Your task to perform on an android device: Go to eBay Image 0: 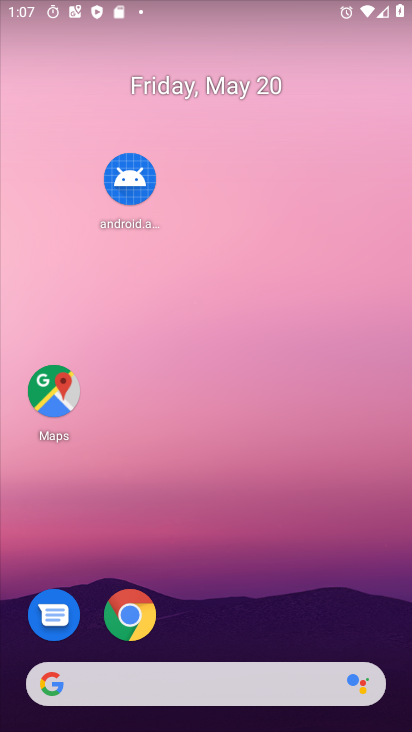
Step 0: click (139, 619)
Your task to perform on an android device: Go to eBay Image 1: 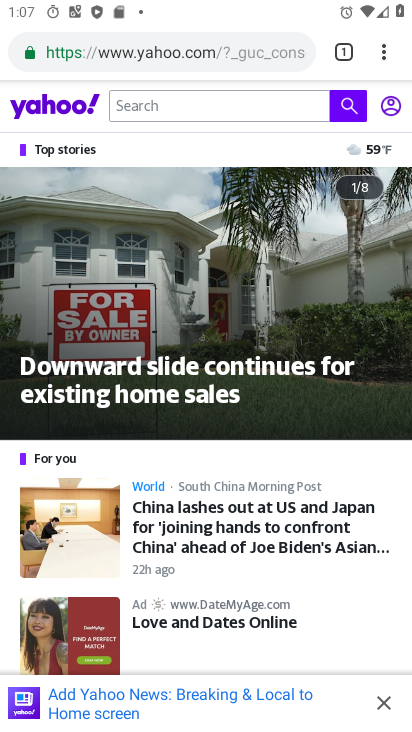
Step 1: click (186, 48)
Your task to perform on an android device: Go to eBay Image 2: 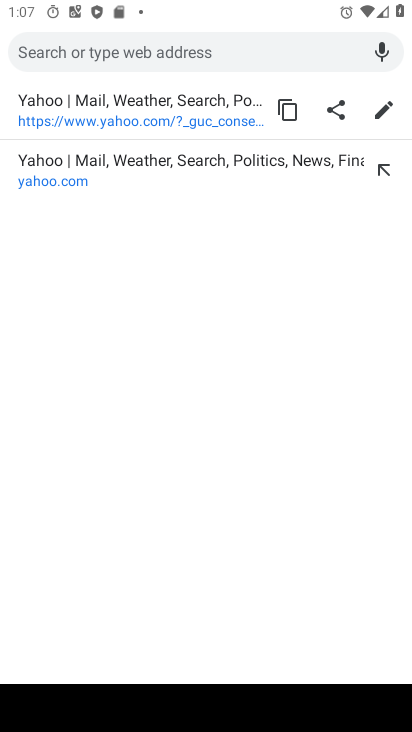
Step 2: type "ebay.com"
Your task to perform on an android device: Go to eBay Image 3: 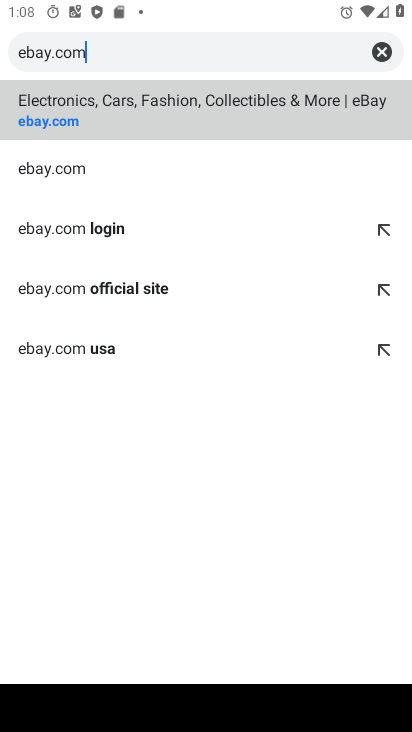
Step 3: click (206, 109)
Your task to perform on an android device: Go to eBay Image 4: 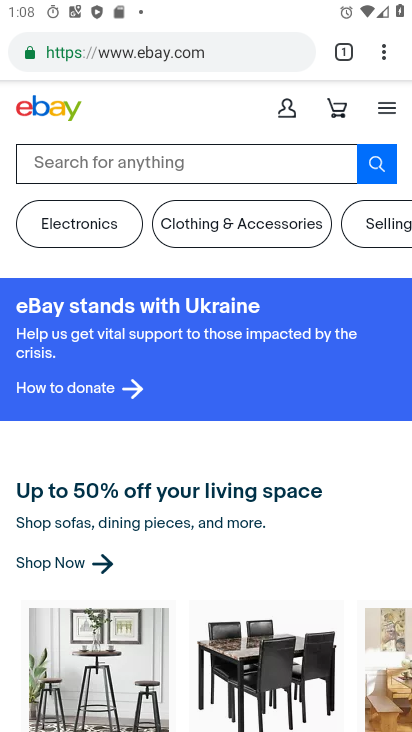
Step 4: task complete